Your task to perform on an android device: Open eBay Image 0: 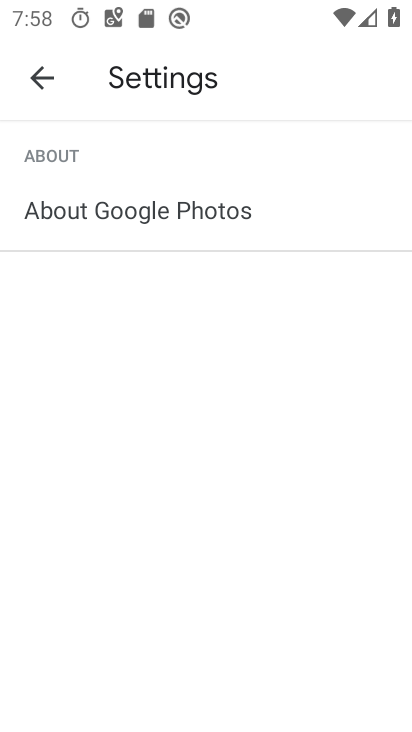
Step 0: press home button
Your task to perform on an android device: Open eBay Image 1: 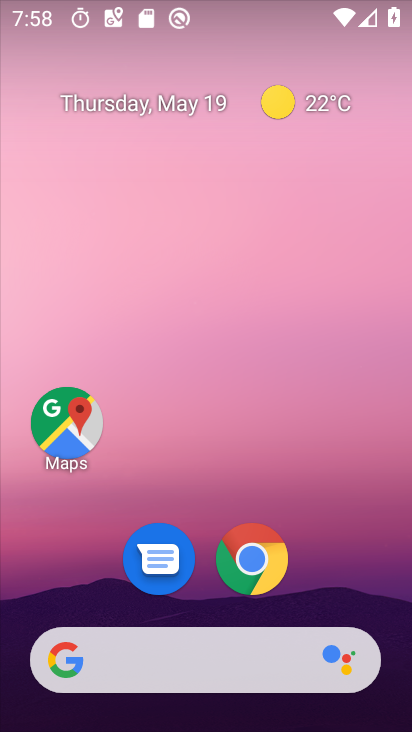
Step 1: click (257, 549)
Your task to perform on an android device: Open eBay Image 2: 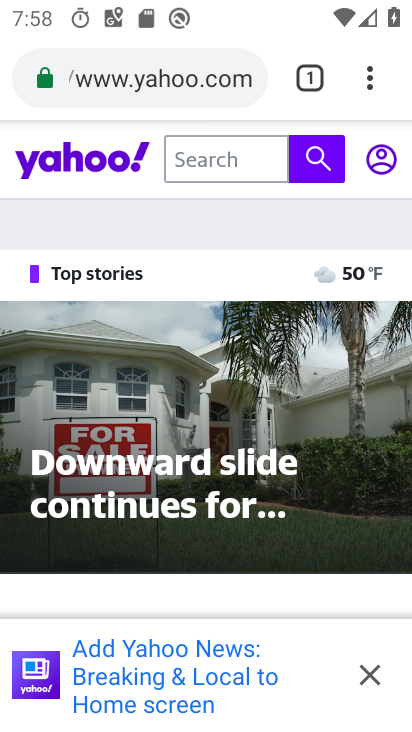
Step 2: click (188, 73)
Your task to perform on an android device: Open eBay Image 3: 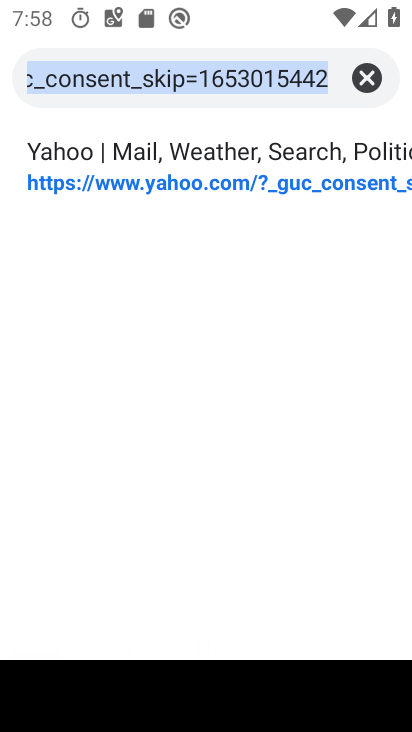
Step 3: type "ebay"
Your task to perform on an android device: Open eBay Image 4: 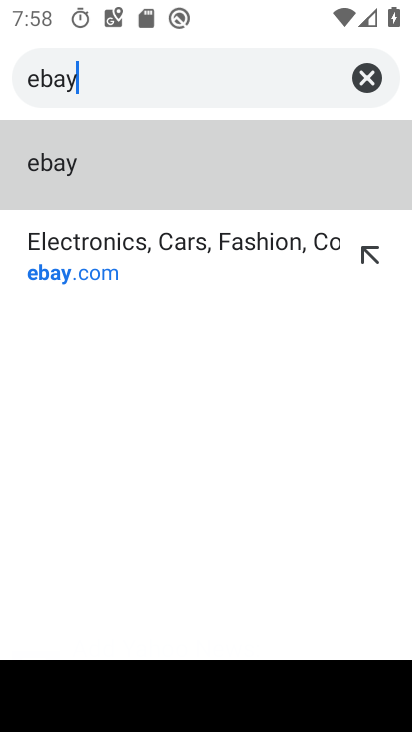
Step 4: click (109, 161)
Your task to perform on an android device: Open eBay Image 5: 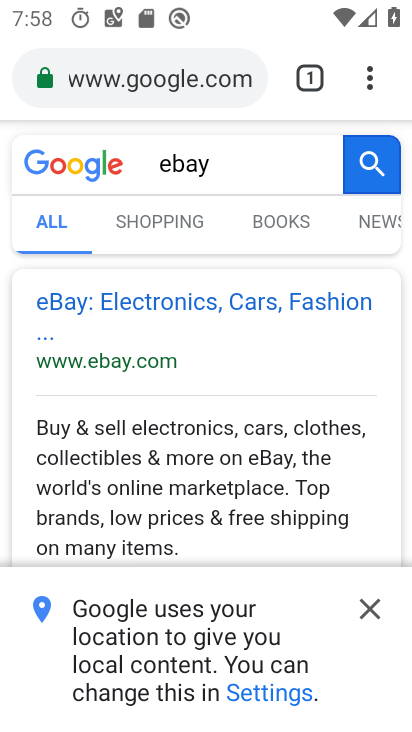
Step 5: click (113, 295)
Your task to perform on an android device: Open eBay Image 6: 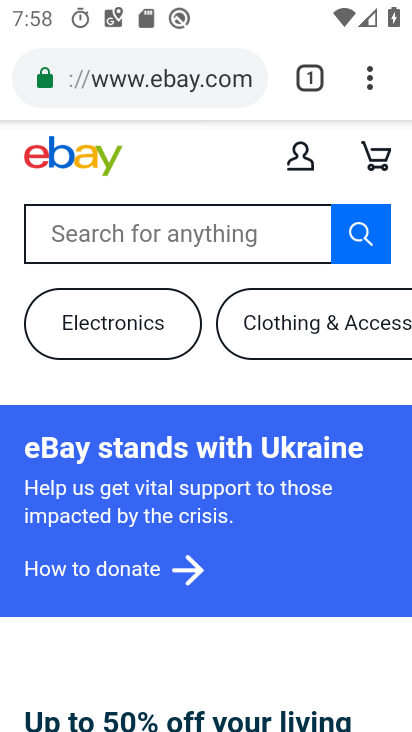
Step 6: task complete